Your task to perform on an android device: Open the calendar app, open the side menu, and click the "Day" option Image 0: 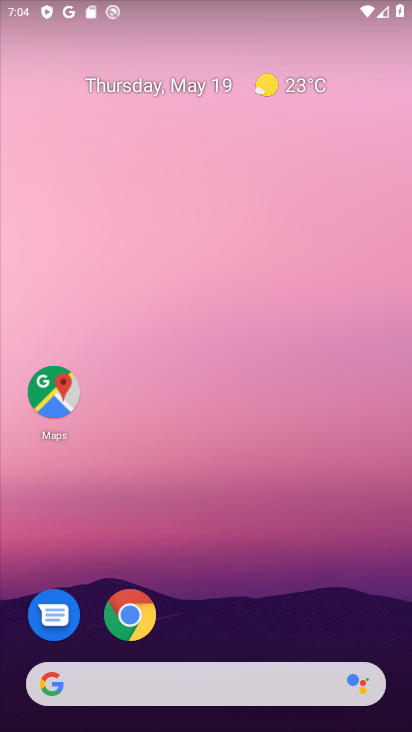
Step 0: drag from (355, 602) to (297, 10)
Your task to perform on an android device: Open the calendar app, open the side menu, and click the "Day" option Image 1: 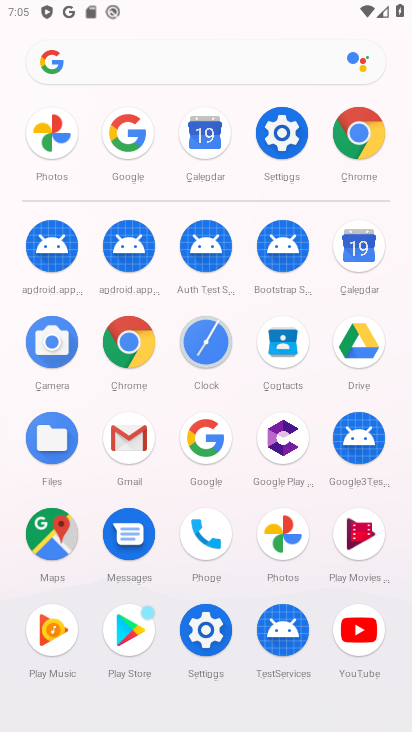
Step 1: click (348, 262)
Your task to perform on an android device: Open the calendar app, open the side menu, and click the "Day" option Image 2: 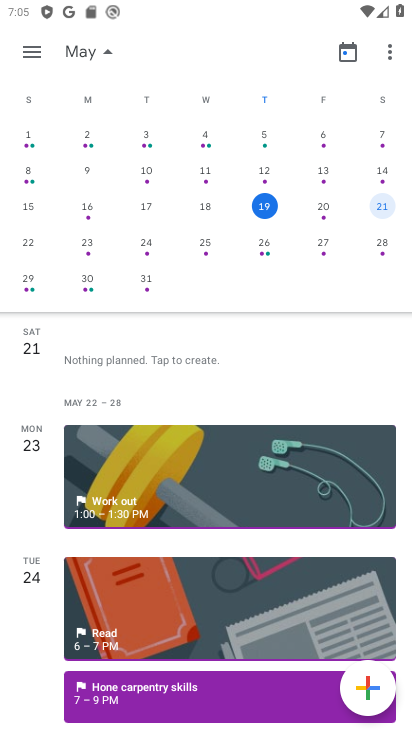
Step 2: click (38, 47)
Your task to perform on an android device: Open the calendar app, open the side menu, and click the "Day" option Image 3: 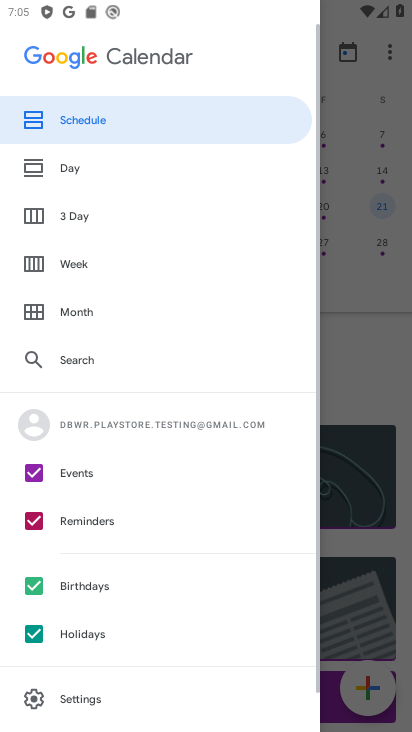
Step 3: click (99, 164)
Your task to perform on an android device: Open the calendar app, open the side menu, and click the "Day" option Image 4: 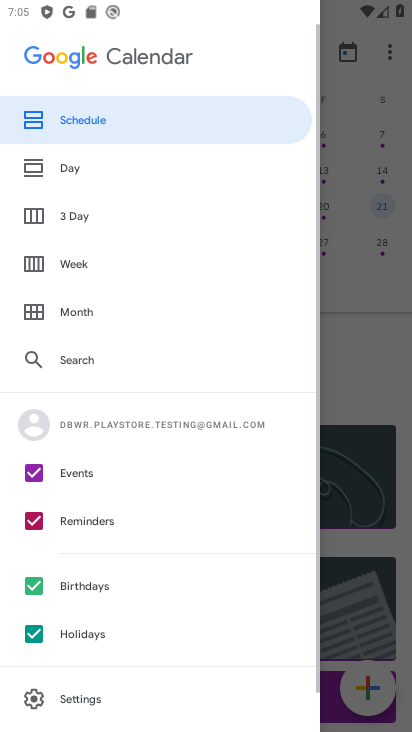
Step 4: click (99, 164)
Your task to perform on an android device: Open the calendar app, open the side menu, and click the "Day" option Image 5: 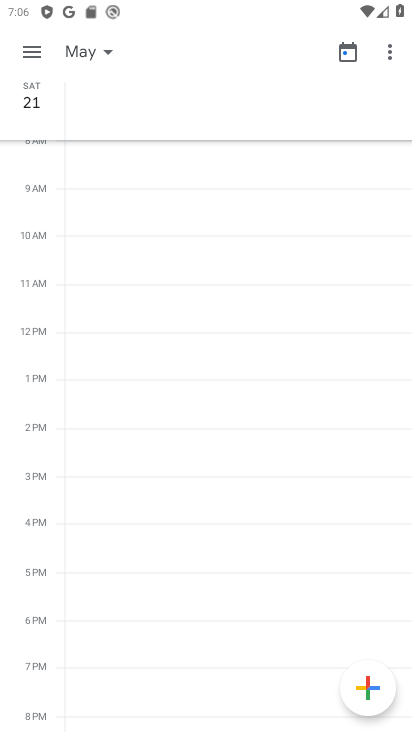
Step 5: task complete